Your task to perform on an android device: Open internet settings Image 0: 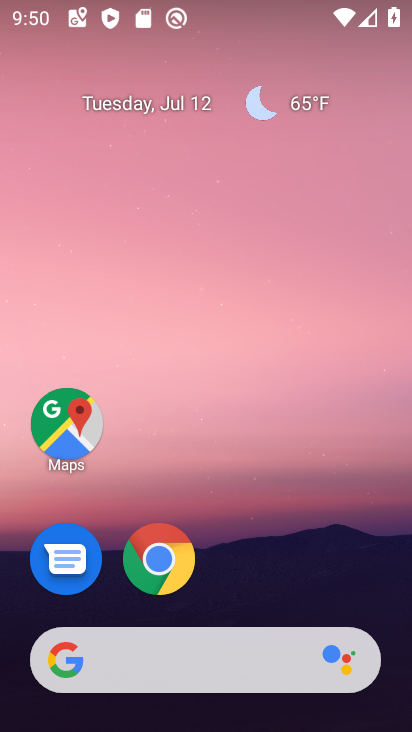
Step 0: drag from (343, 580) to (307, 142)
Your task to perform on an android device: Open internet settings Image 1: 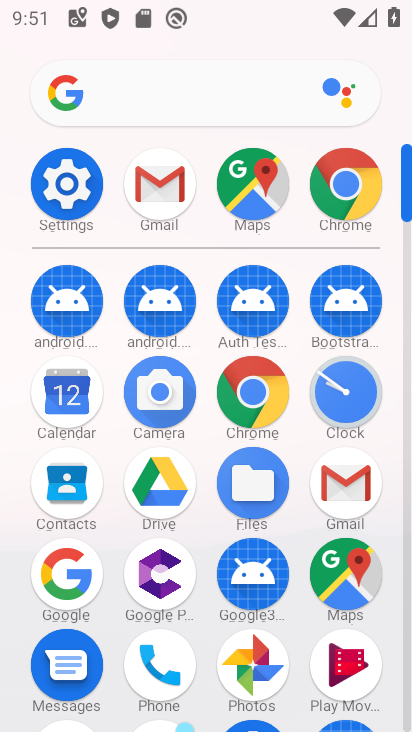
Step 1: click (73, 198)
Your task to perform on an android device: Open internet settings Image 2: 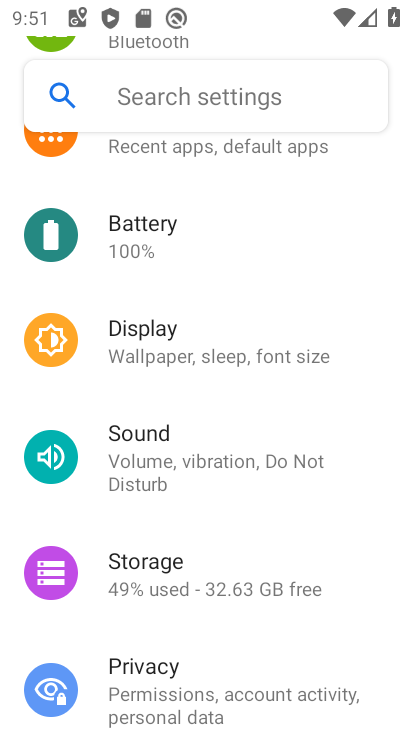
Step 2: drag from (343, 209) to (353, 358)
Your task to perform on an android device: Open internet settings Image 3: 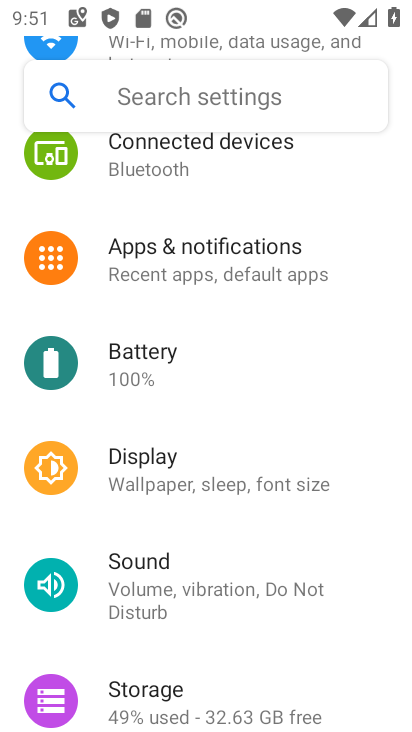
Step 3: drag from (353, 183) to (345, 310)
Your task to perform on an android device: Open internet settings Image 4: 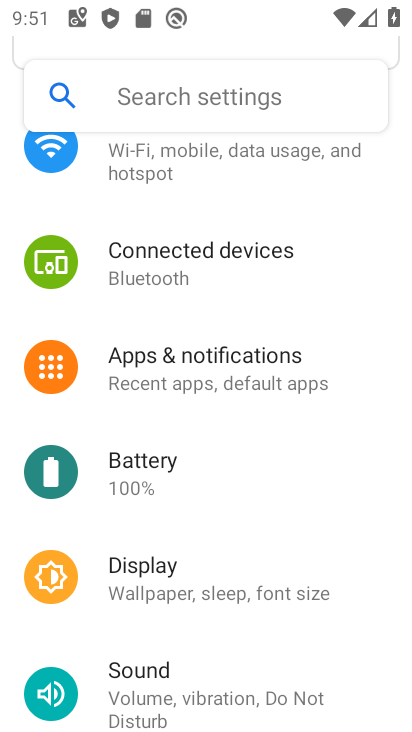
Step 4: drag from (355, 203) to (359, 347)
Your task to perform on an android device: Open internet settings Image 5: 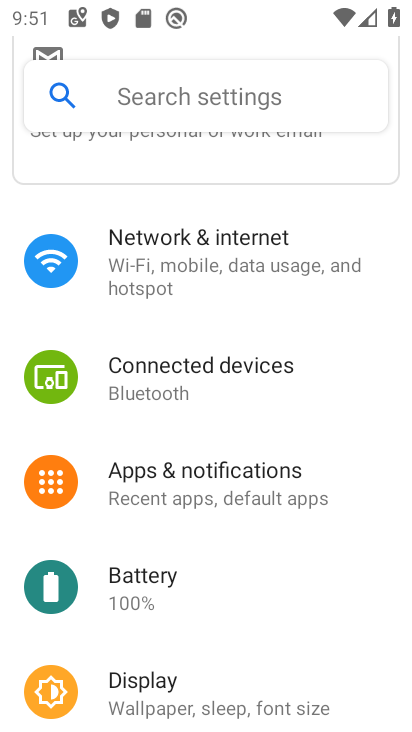
Step 5: drag from (371, 213) to (375, 400)
Your task to perform on an android device: Open internet settings Image 6: 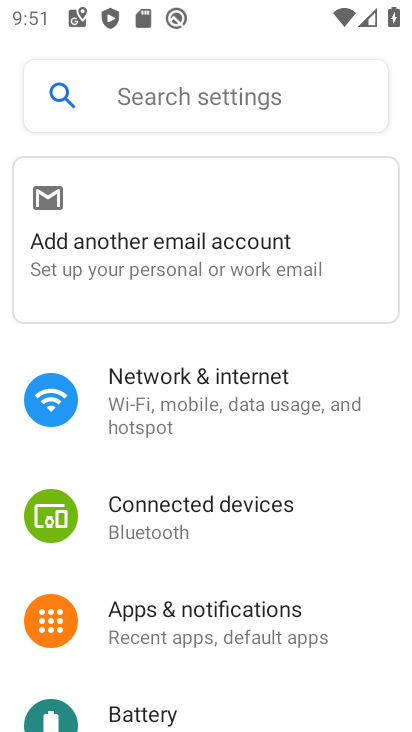
Step 6: click (318, 391)
Your task to perform on an android device: Open internet settings Image 7: 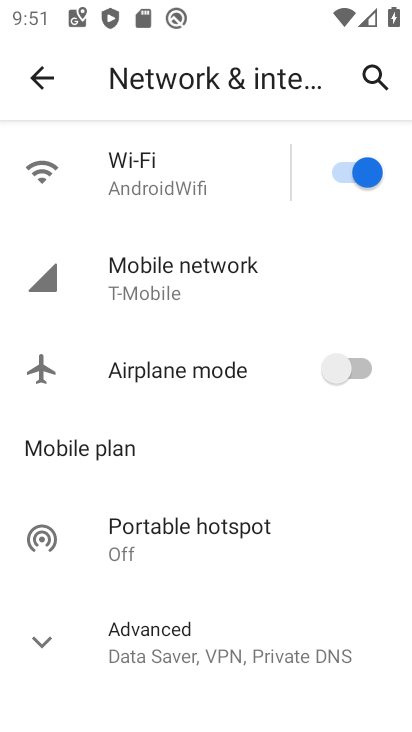
Step 7: task complete